Your task to perform on an android device: open app "Gmail" Image 0: 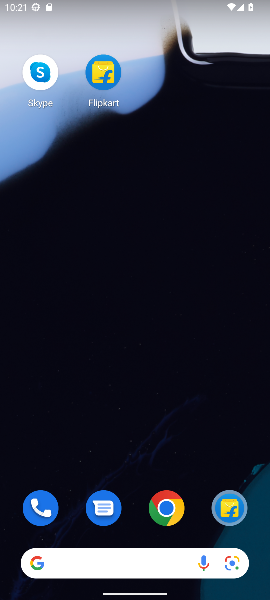
Step 0: drag from (142, 420) to (94, 251)
Your task to perform on an android device: open app "Gmail" Image 1: 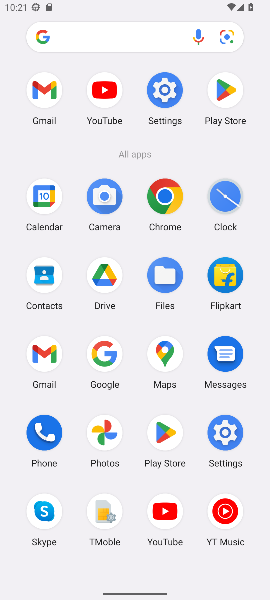
Step 1: click (45, 354)
Your task to perform on an android device: open app "Gmail" Image 2: 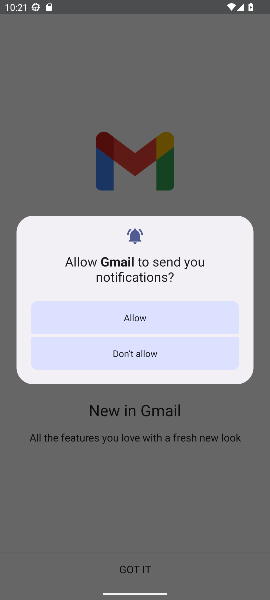
Step 2: click (124, 349)
Your task to perform on an android device: open app "Gmail" Image 3: 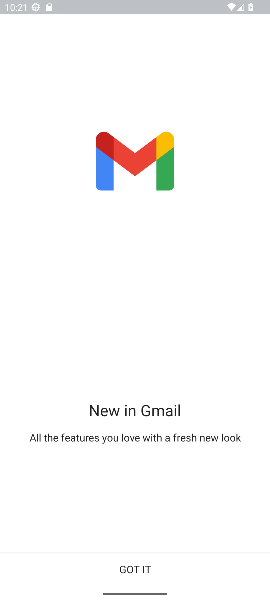
Step 3: click (126, 573)
Your task to perform on an android device: open app "Gmail" Image 4: 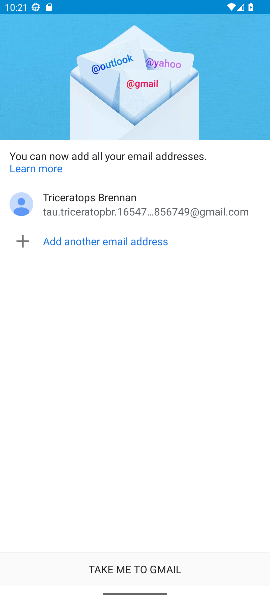
Step 4: click (126, 573)
Your task to perform on an android device: open app "Gmail" Image 5: 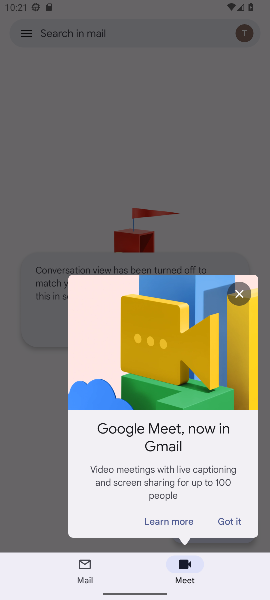
Step 5: task complete